Your task to perform on an android device: open app "Facebook" (install if not already installed) and go to login screen Image 0: 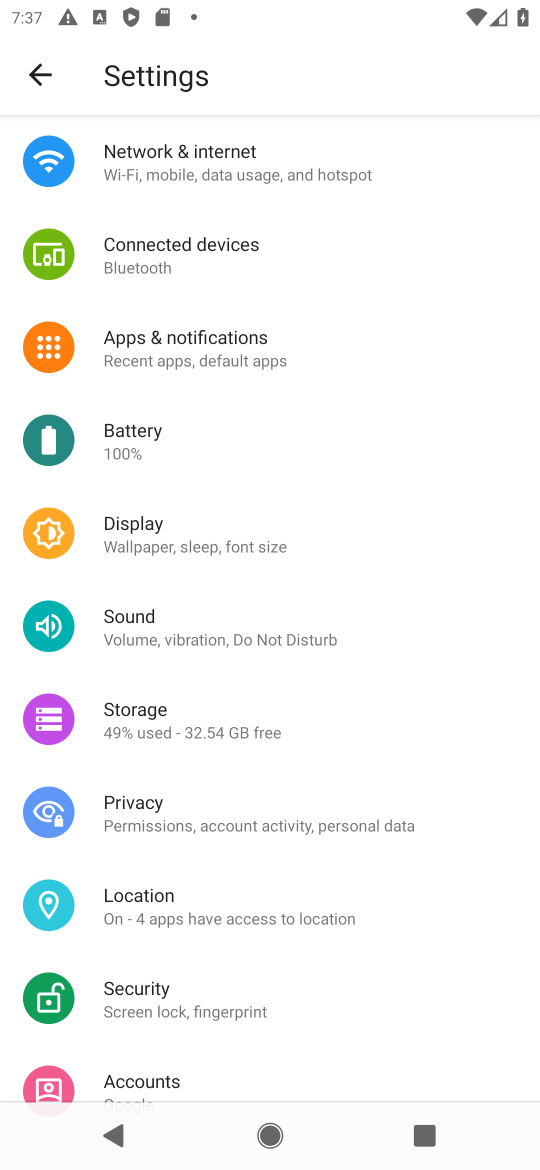
Step 0: press home button
Your task to perform on an android device: open app "Facebook" (install if not already installed) and go to login screen Image 1: 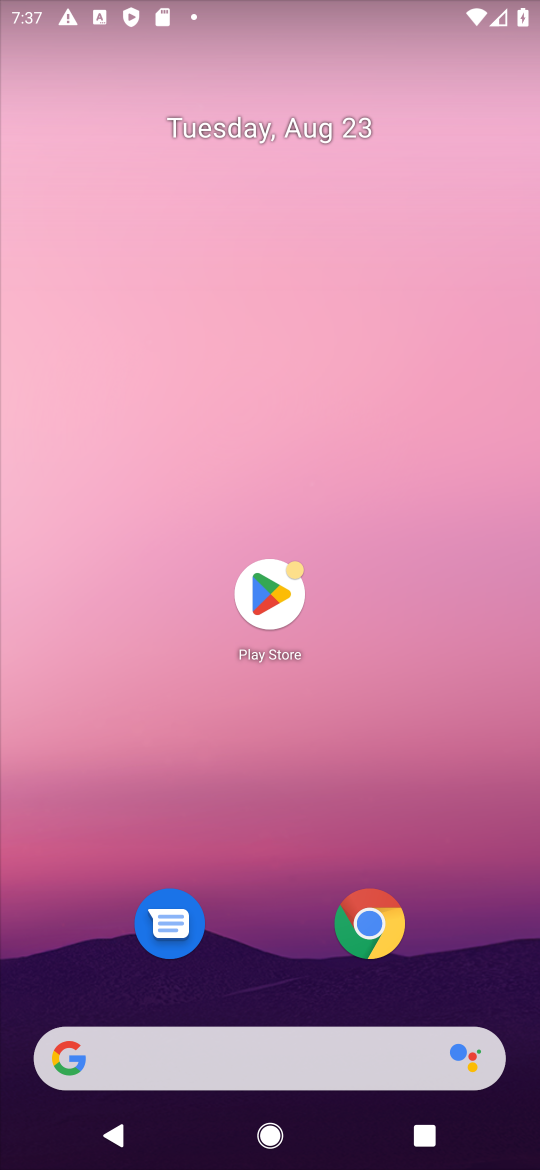
Step 1: click (273, 586)
Your task to perform on an android device: open app "Facebook" (install if not already installed) and go to login screen Image 2: 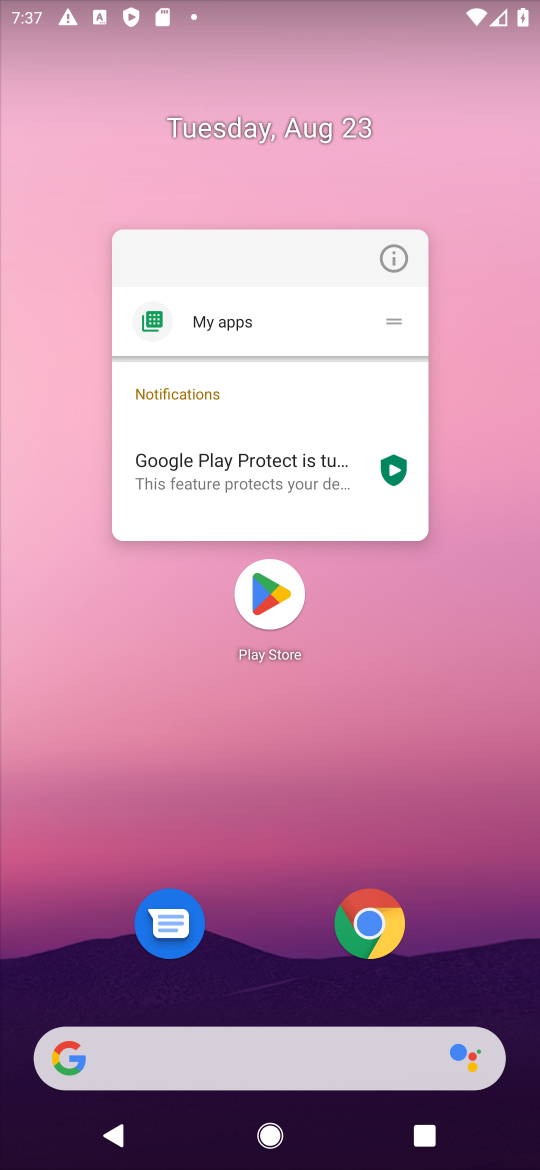
Step 2: click (266, 594)
Your task to perform on an android device: open app "Facebook" (install if not already installed) and go to login screen Image 3: 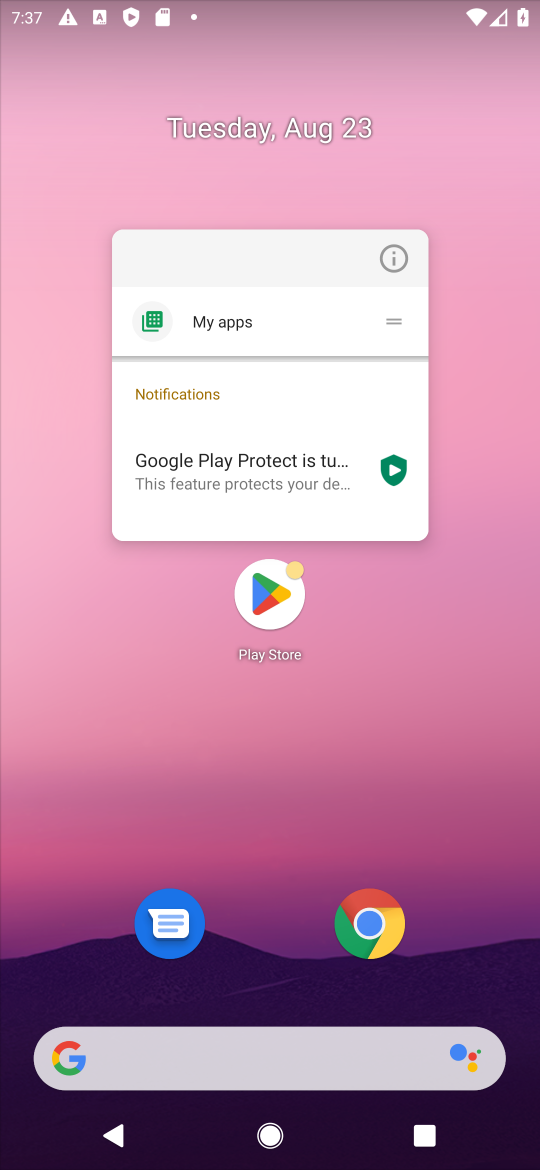
Step 3: click (265, 597)
Your task to perform on an android device: open app "Facebook" (install if not already installed) and go to login screen Image 4: 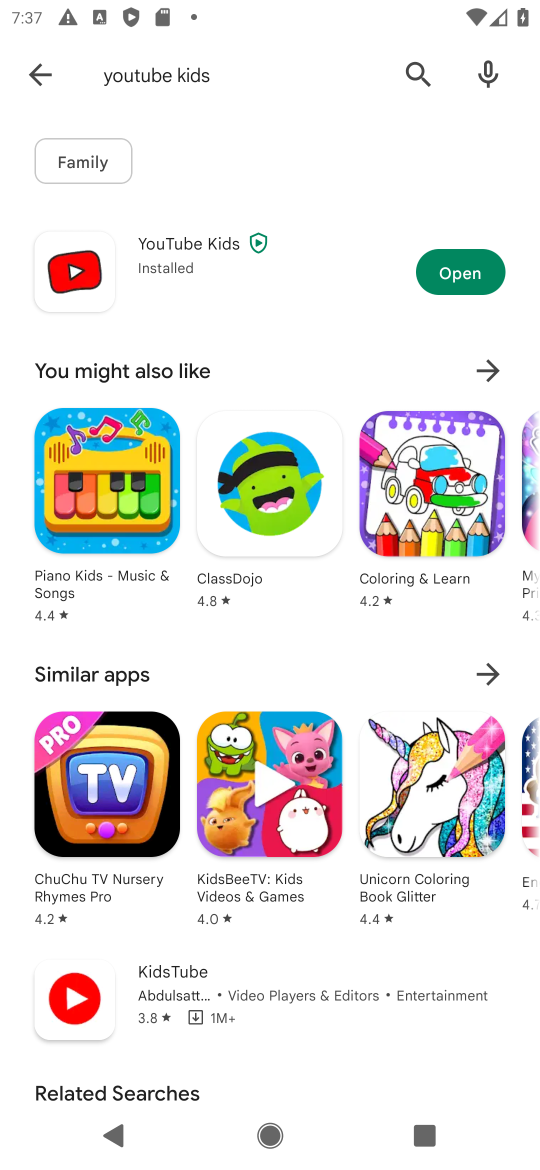
Step 4: click (414, 59)
Your task to perform on an android device: open app "Facebook" (install if not already installed) and go to login screen Image 5: 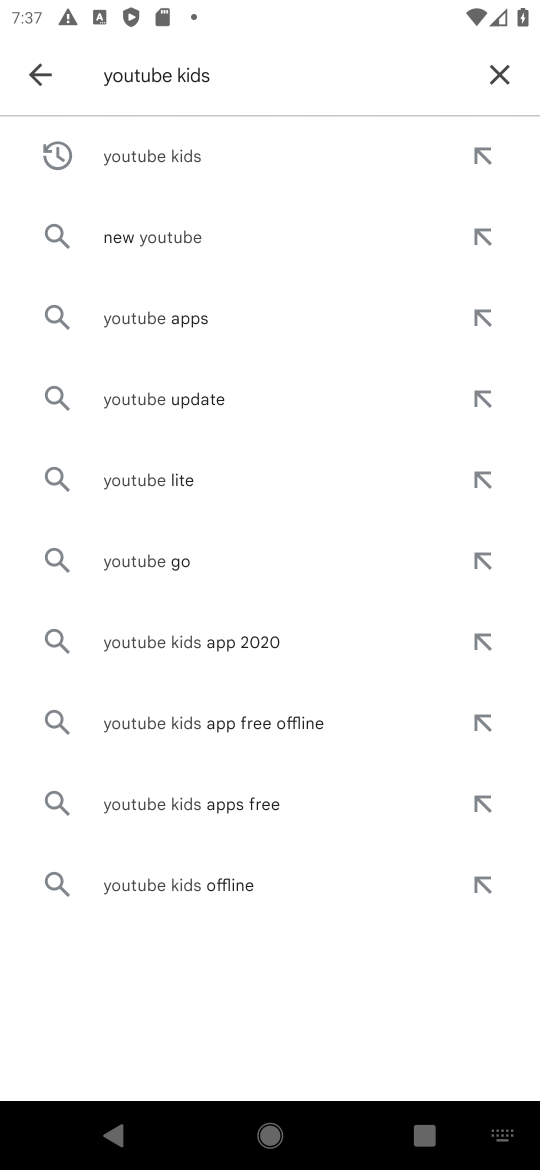
Step 5: click (503, 81)
Your task to perform on an android device: open app "Facebook" (install if not already installed) and go to login screen Image 6: 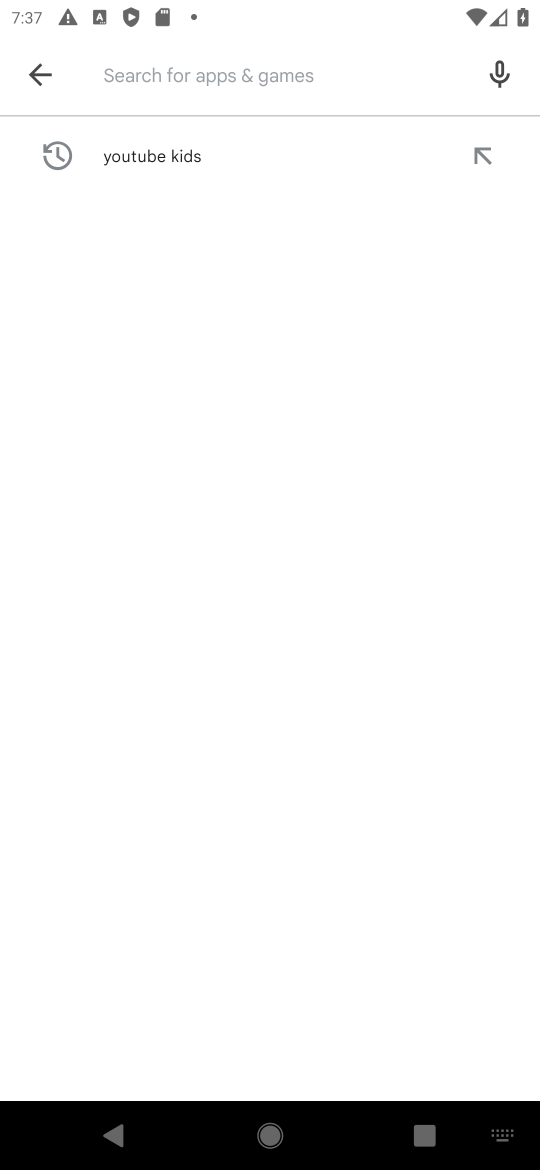
Step 6: type "Facebook"
Your task to perform on an android device: open app "Facebook" (install if not already installed) and go to login screen Image 7: 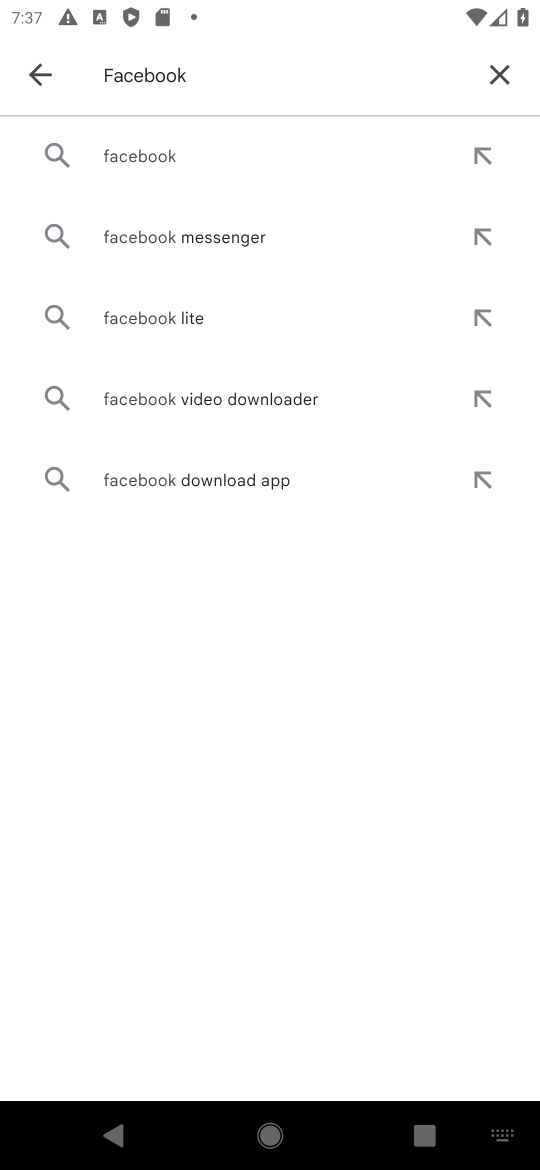
Step 7: click (156, 157)
Your task to perform on an android device: open app "Facebook" (install if not already installed) and go to login screen Image 8: 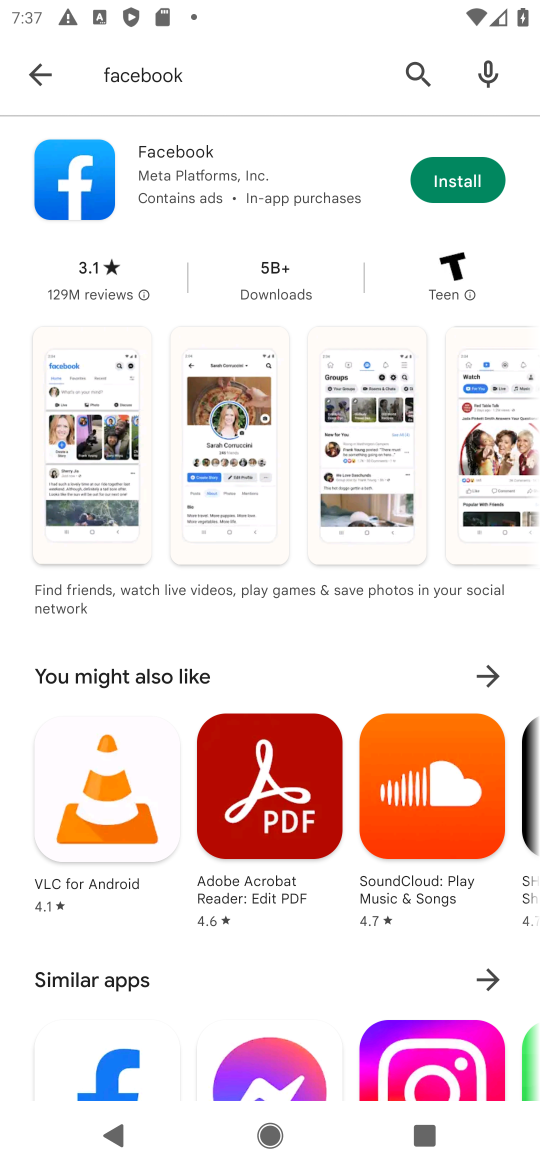
Step 8: click (460, 183)
Your task to perform on an android device: open app "Facebook" (install if not already installed) and go to login screen Image 9: 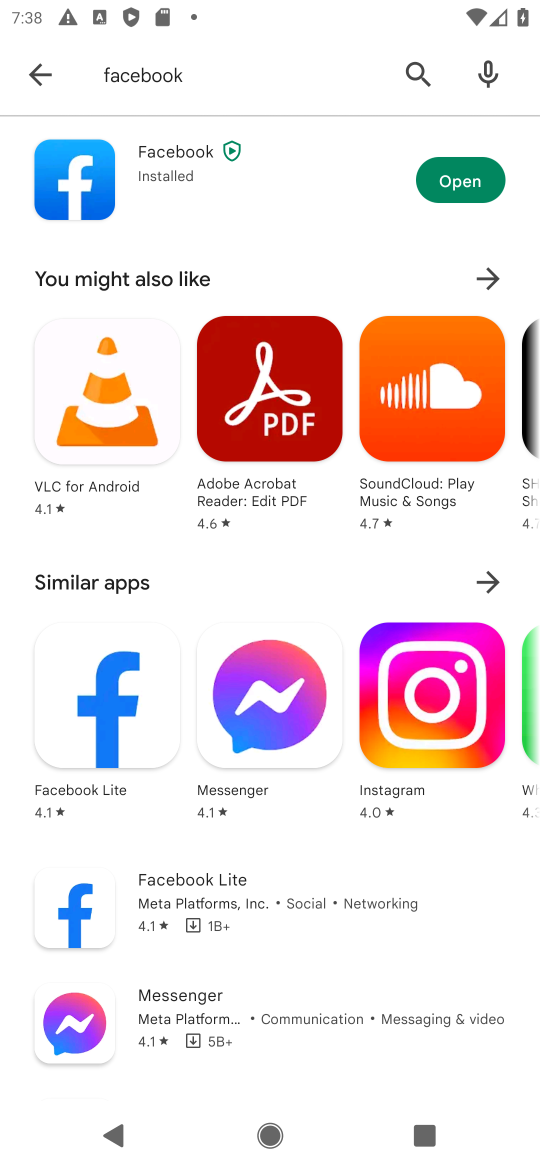
Step 9: click (460, 183)
Your task to perform on an android device: open app "Facebook" (install if not already installed) and go to login screen Image 10: 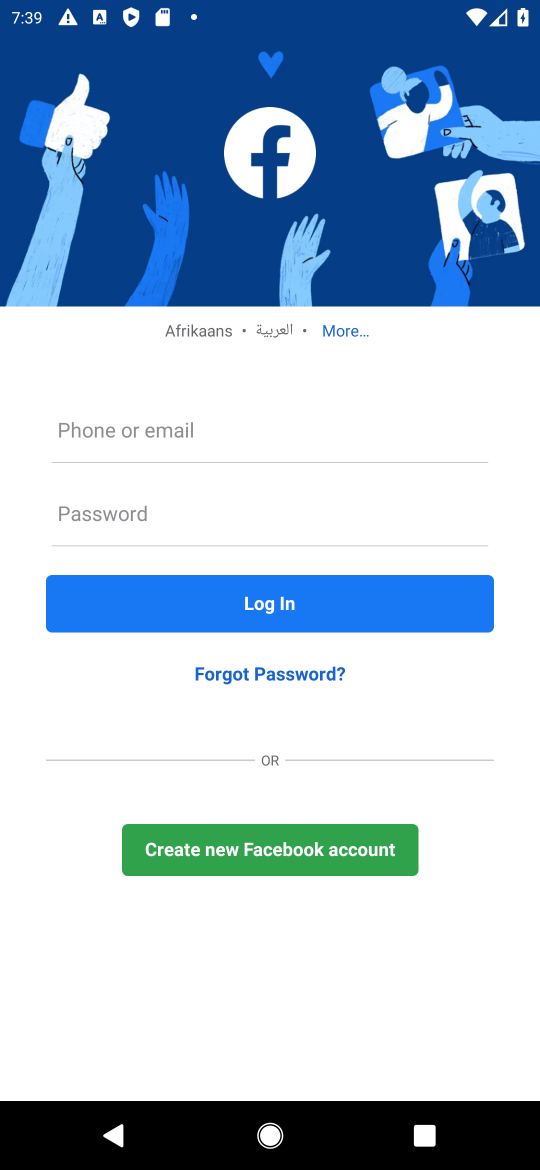
Step 10: task complete